Your task to perform on an android device: Search for hotels in Sydney Image 0: 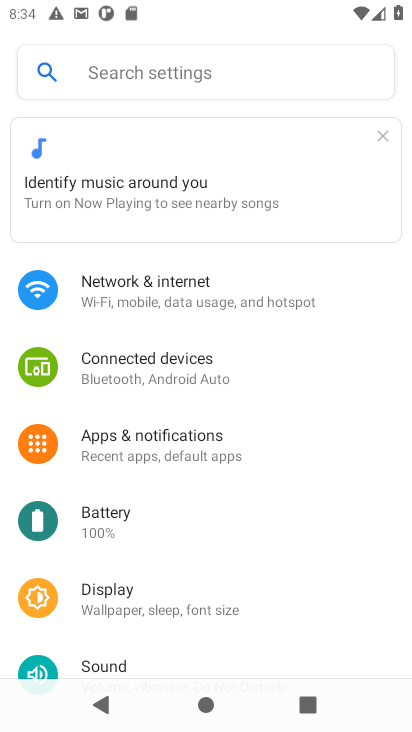
Step 0: press home button
Your task to perform on an android device: Search for hotels in Sydney Image 1: 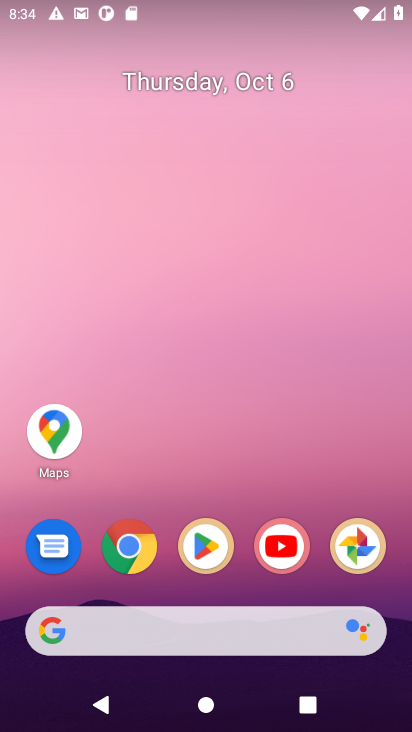
Step 1: click (131, 550)
Your task to perform on an android device: Search for hotels in Sydney Image 2: 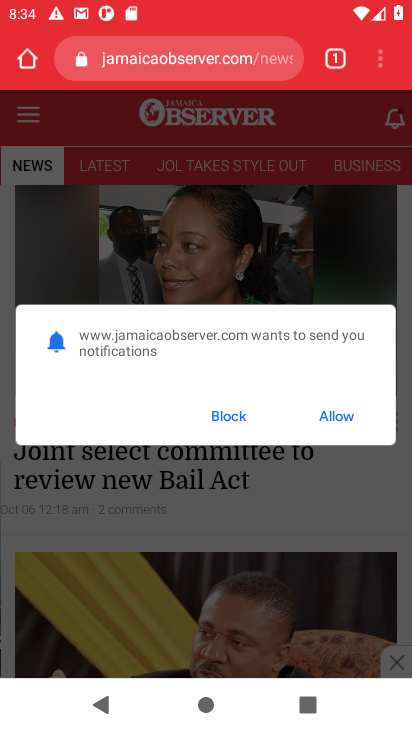
Step 2: click (226, 38)
Your task to perform on an android device: Search for hotels in Sydney Image 3: 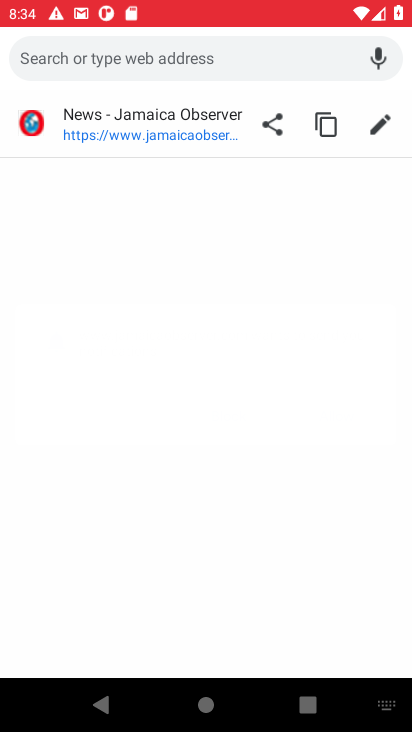
Step 3: type "hotels in Sydney"
Your task to perform on an android device: Search for hotels in Sydney Image 4: 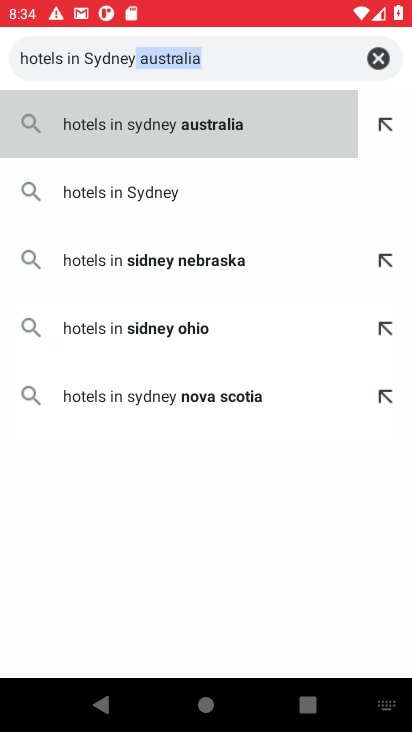
Step 4: click (133, 188)
Your task to perform on an android device: Search for hotels in Sydney Image 5: 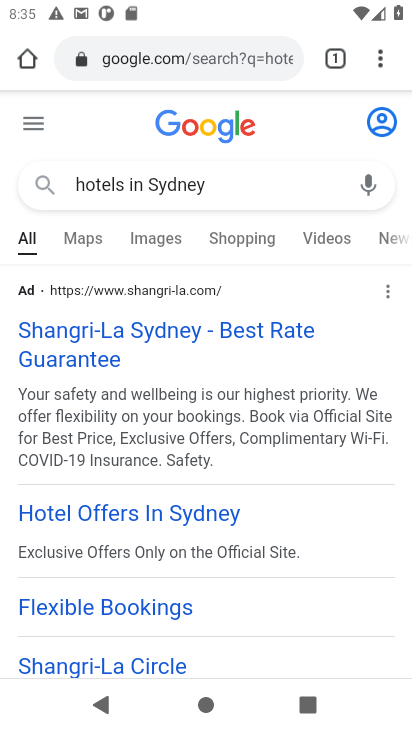
Step 5: click (80, 337)
Your task to perform on an android device: Search for hotels in Sydney Image 6: 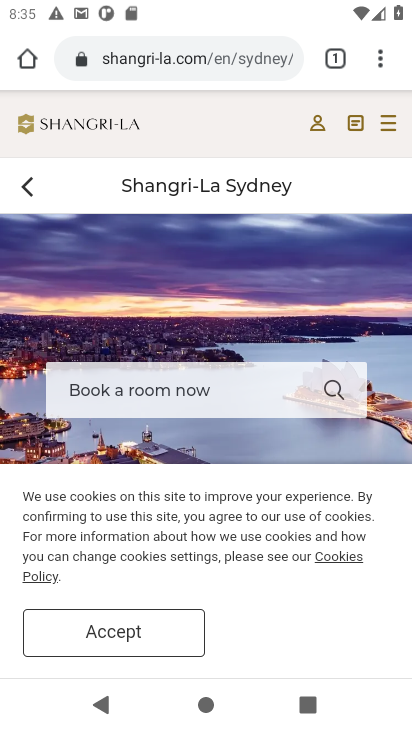
Step 6: click (105, 632)
Your task to perform on an android device: Search for hotels in Sydney Image 7: 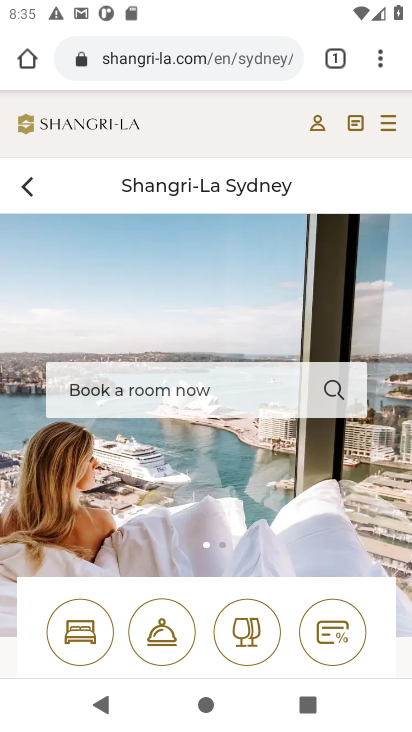
Step 7: task complete